Your task to perform on an android device: open chrome and create a bookmark for the current page Image 0: 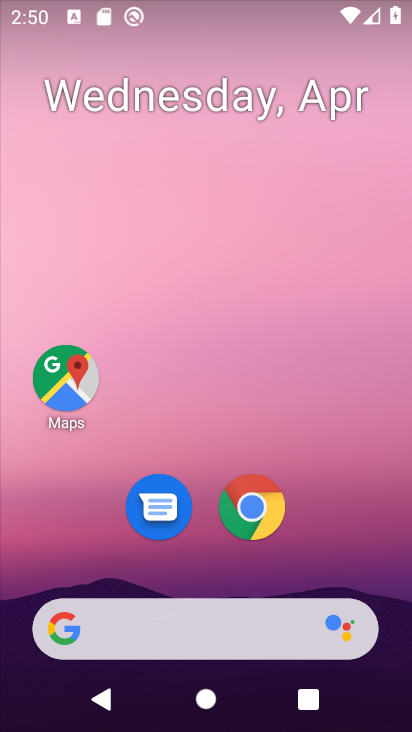
Step 0: click (65, 77)
Your task to perform on an android device: open chrome and create a bookmark for the current page Image 1: 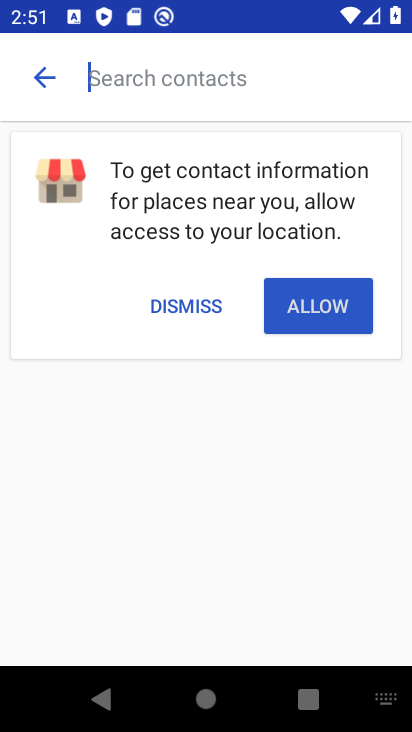
Step 1: press home button
Your task to perform on an android device: open chrome and create a bookmark for the current page Image 2: 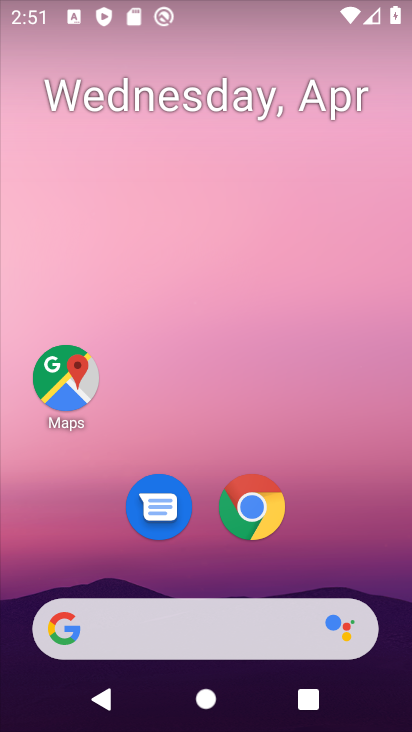
Step 2: click (260, 510)
Your task to perform on an android device: open chrome and create a bookmark for the current page Image 3: 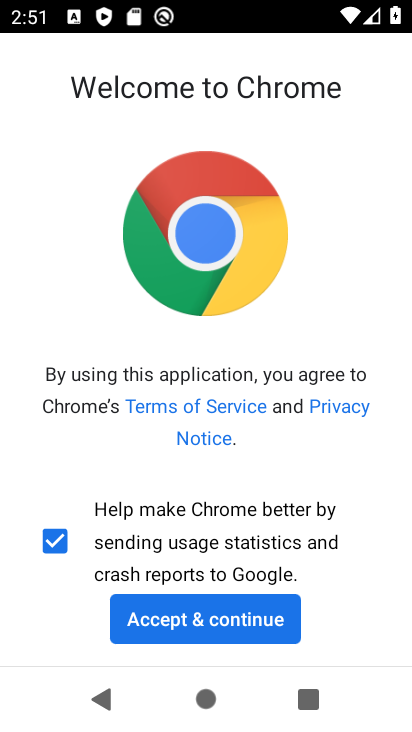
Step 3: click (286, 616)
Your task to perform on an android device: open chrome and create a bookmark for the current page Image 4: 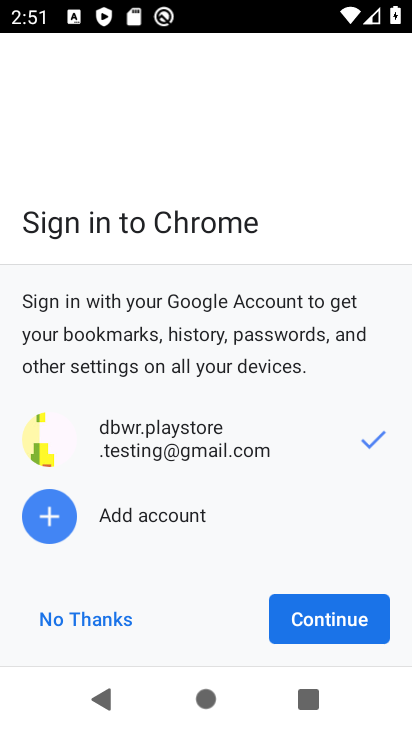
Step 4: click (323, 615)
Your task to perform on an android device: open chrome and create a bookmark for the current page Image 5: 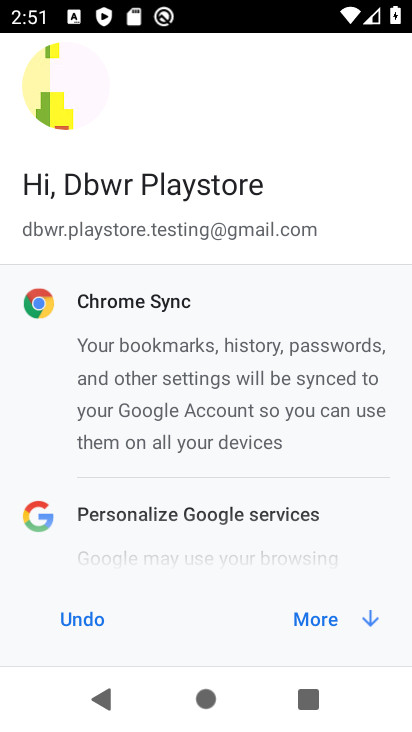
Step 5: click (323, 615)
Your task to perform on an android device: open chrome and create a bookmark for the current page Image 6: 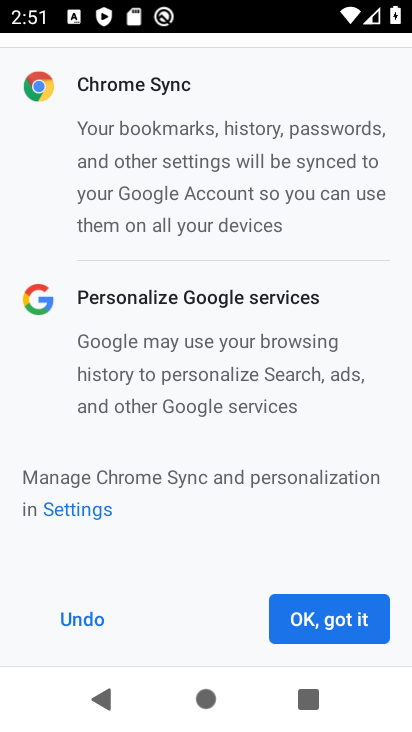
Step 6: click (323, 615)
Your task to perform on an android device: open chrome and create a bookmark for the current page Image 7: 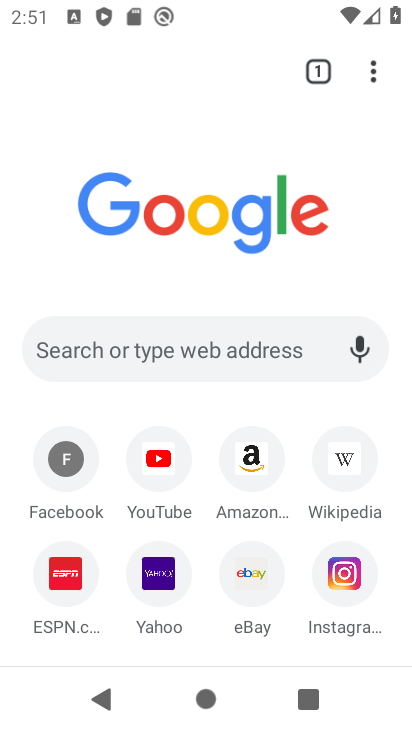
Step 7: click (370, 73)
Your task to perform on an android device: open chrome and create a bookmark for the current page Image 8: 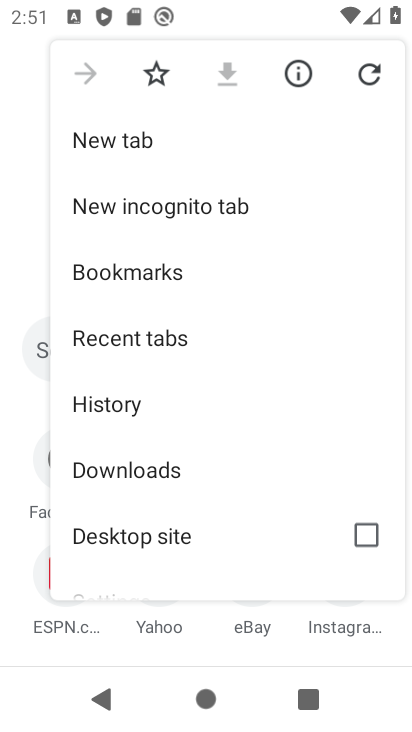
Step 8: click (158, 76)
Your task to perform on an android device: open chrome and create a bookmark for the current page Image 9: 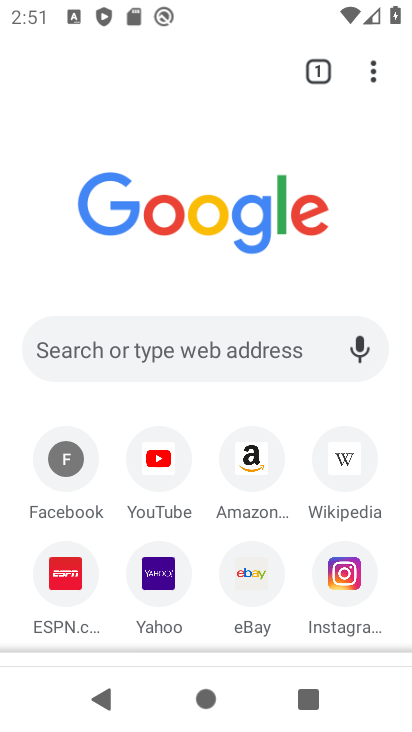
Step 9: task complete